Your task to perform on an android device: Go to calendar. Show me events next week Image 0: 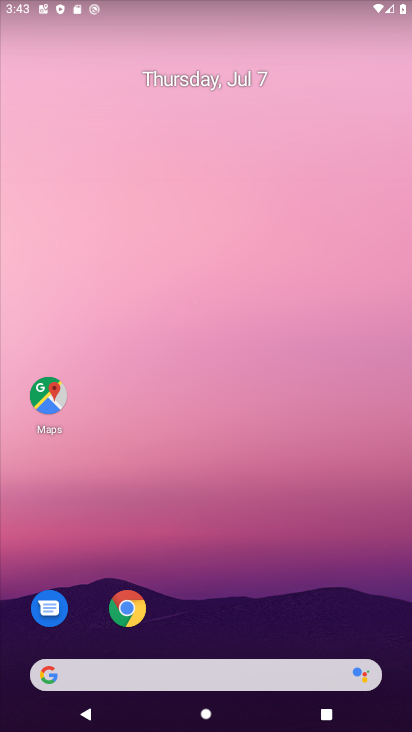
Step 0: click (133, 604)
Your task to perform on an android device: Go to calendar. Show me events next week Image 1: 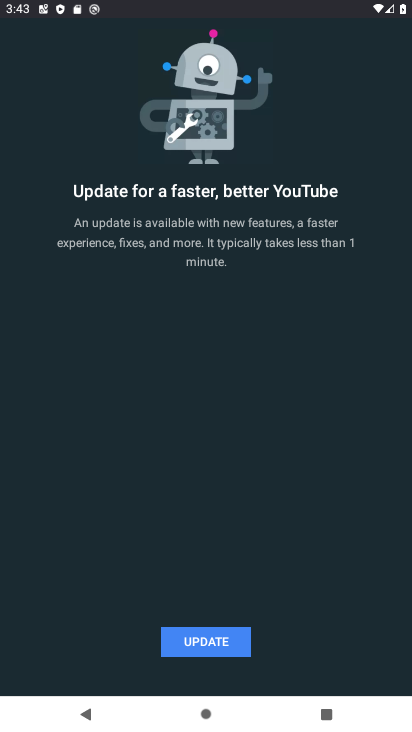
Step 1: press back button
Your task to perform on an android device: Go to calendar. Show me events next week Image 2: 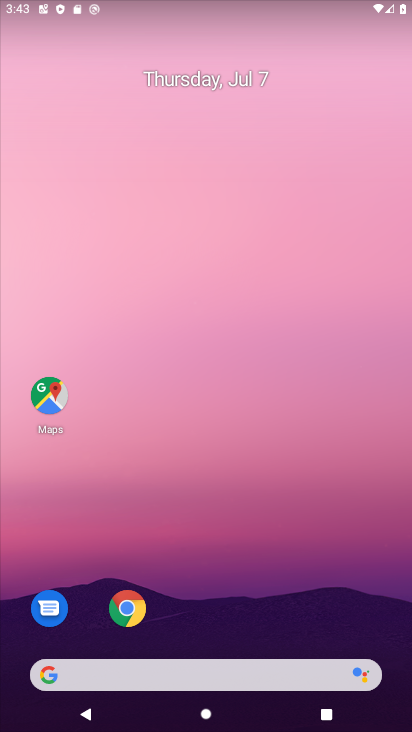
Step 2: drag from (251, 613) to (170, 90)
Your task to perform on an android device: Go to calendar. Show me events next week Image 3: 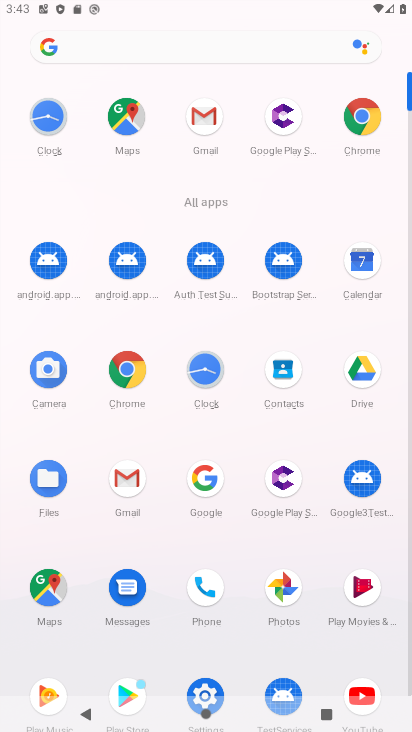
Step 3: click (364, 265)
Your task to perform on an android device: Go to calendar. Show me events next week Image 4: 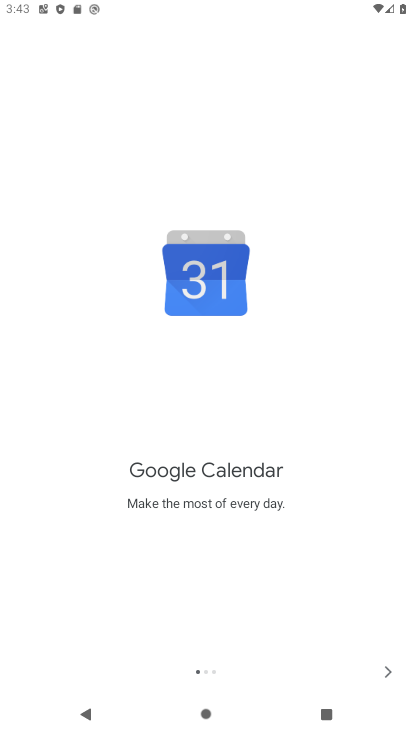
Step 4: click (389, 664)
Your task to perform on an android device: Go to calendar. Show me events next week Image 5: 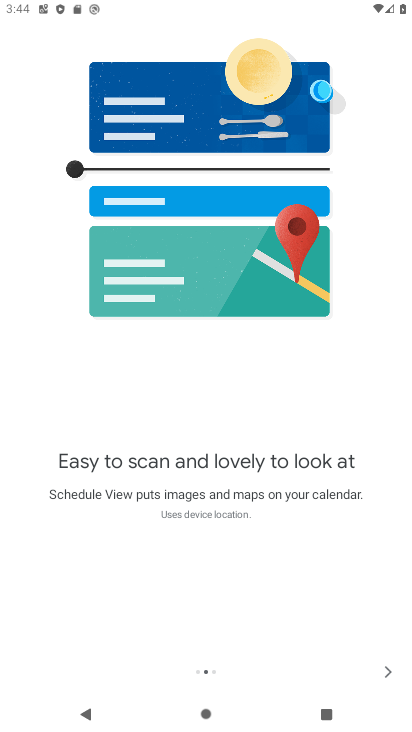
Step 5: click (386, 673)
Your task to perform on an android device: Go to calendar. Show me events next week Image 6: 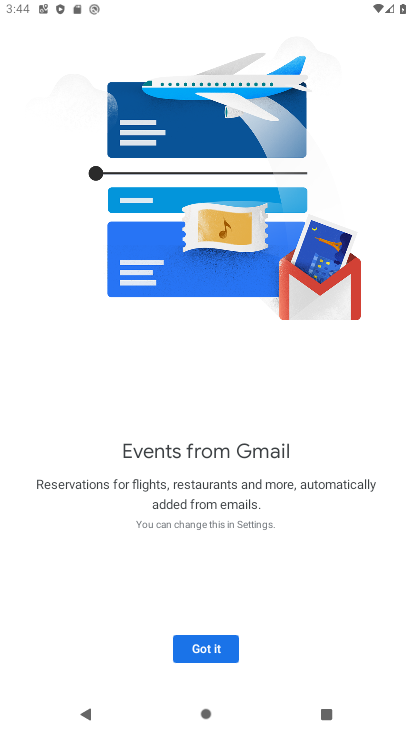
Step 6: click (198, 656)
Your task to perform on an android device: Go to calendar. Show me events next week Image 7: 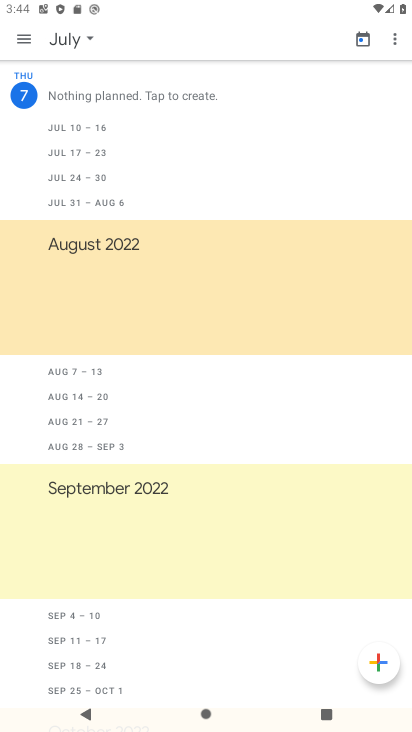
Step 7: click (18, 37)
Your task to perform on an android device: Go to calendar. Show me events next week Image 8: 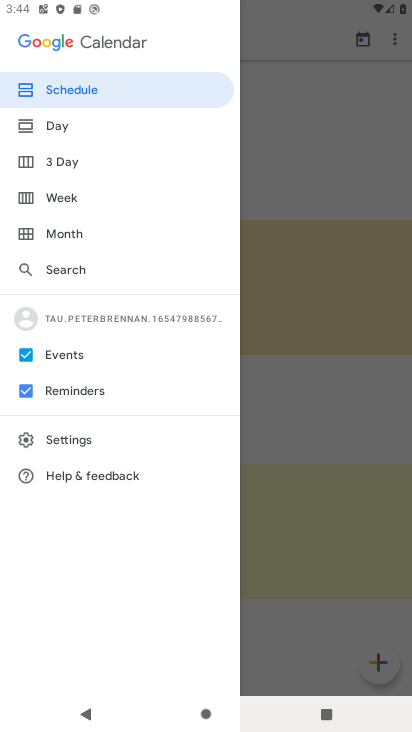
Step 8: click (65, 199)
Your task to perform on an android device: Go to calendar. Show me events next week Image 9: 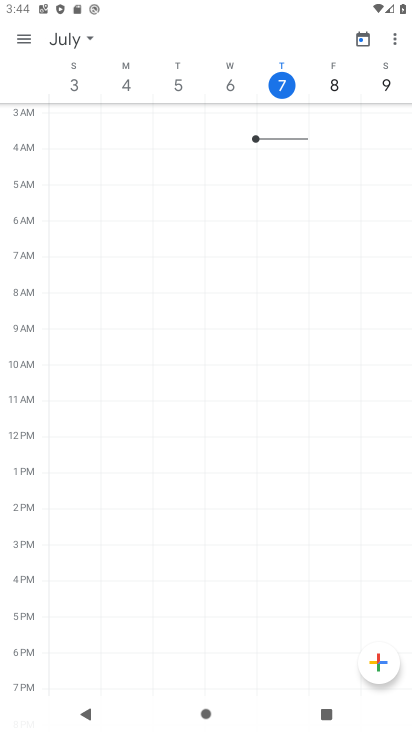
Step 9: click (15, 39)
Your task to perform on an android device: Go to calendar. Show me events next week Image 10: 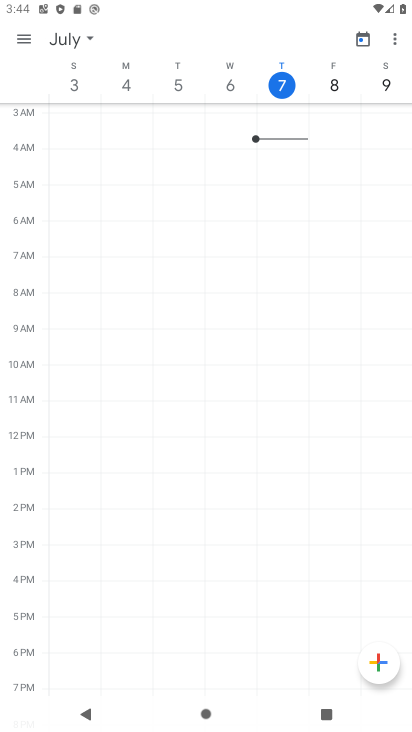
Step 10: click (22, 39)
Your task to perform on an android device: Go to calendar. Show me events next week Image 11: 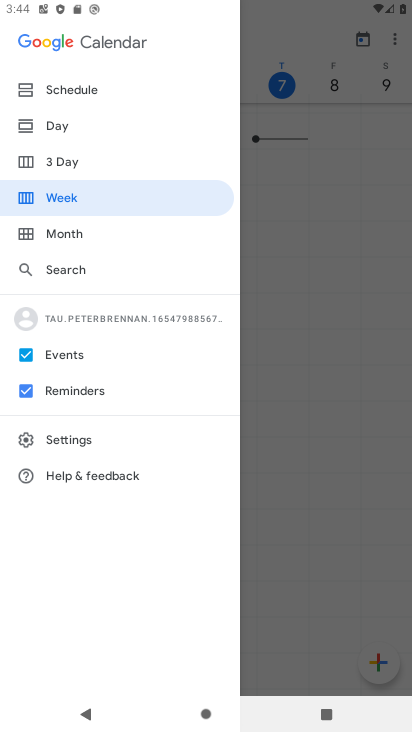
Step 11: click (17, 394)
Your task to perform on an android device: Go to calendar. Show me events next week Image 12: 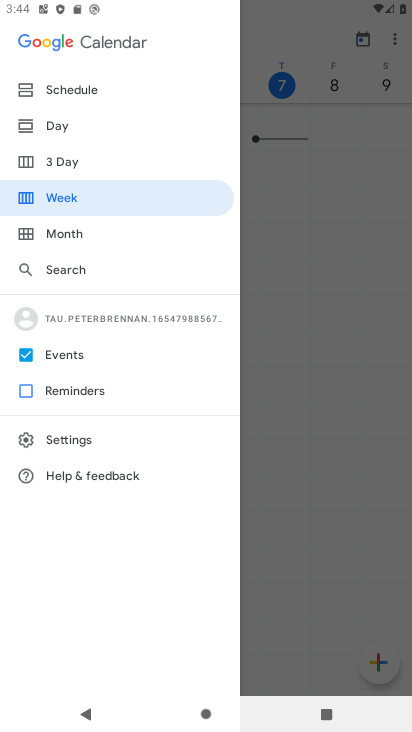
Step 12: click (84, 190)
Your task to perform on an android device: Go to calendar. Show me events next week Image 13: 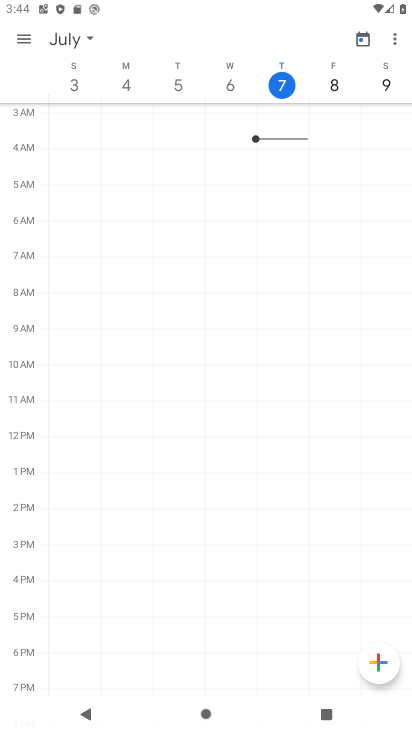
Step 13: task complete